Your task to perform on an android device: Open wifi settings Image 0: 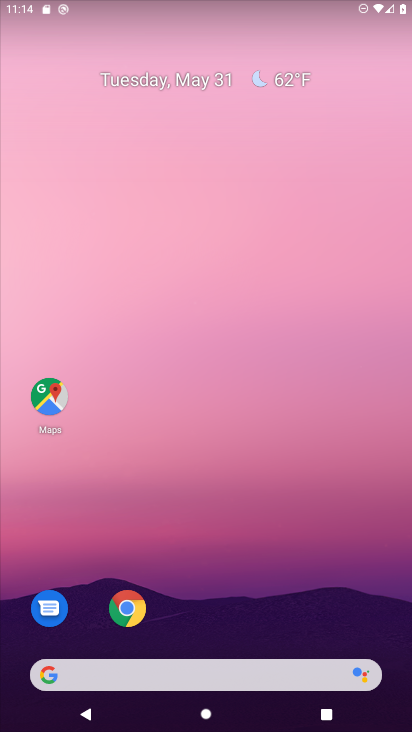
Step 0: drag from (377, 597) to (315, 12)
Your task to perform on an android device: Open wifi settings Image 1: 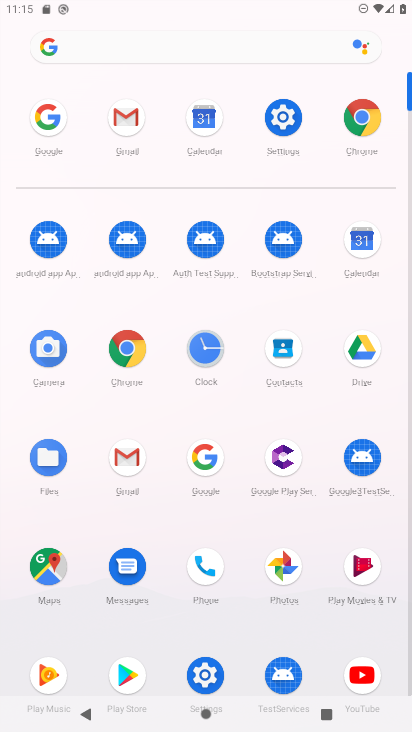
Step 1: click (205, 678)
Your task to perform on an android device: Open wifi settings Image 2: 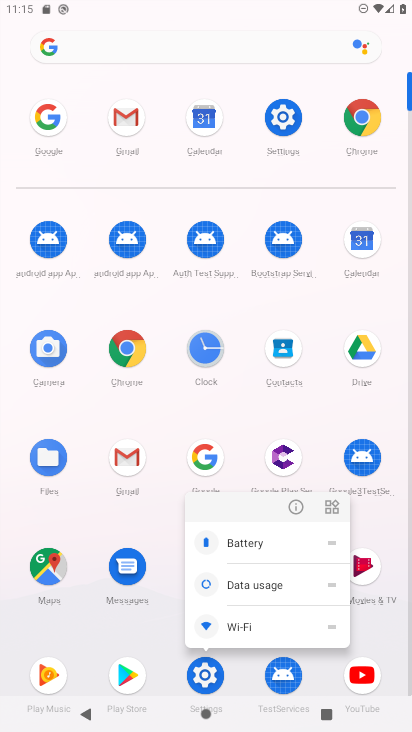
Step 2: click (208, 677)
Your task to perform on an android device: Open wifi settings Image 3: 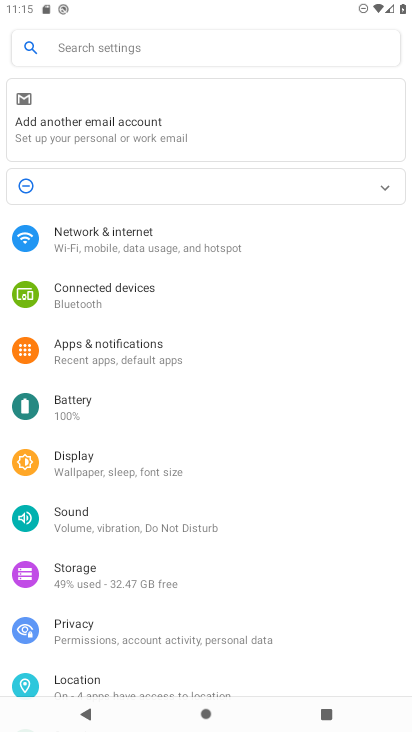
Step 3: click (172, 245)
Your task to perform on an android device: Open wifi settings Image 4: 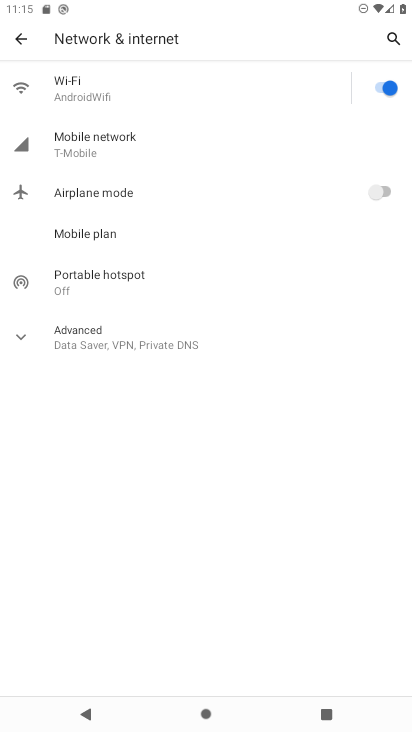
Step 4: click (190, 93)
Your task to perform on an android device: Open wifi settings Image 5: 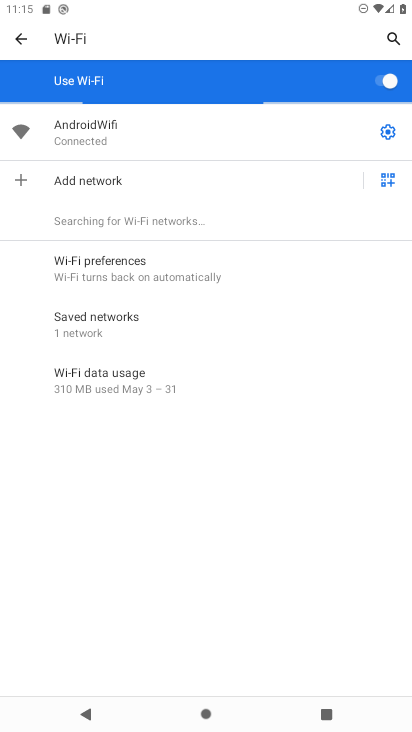
Step 5: click (389, 130)
Your task to perform on an android device: Open wifi settings Image 6: 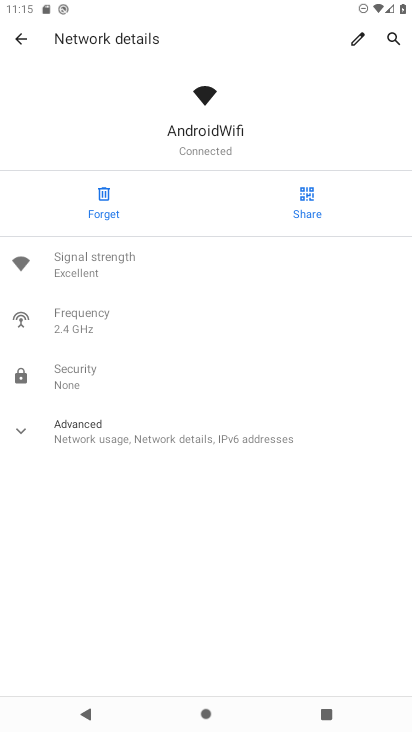
Step 6: task complete